Your task to perform on an android device: What's the weather? Image 0: 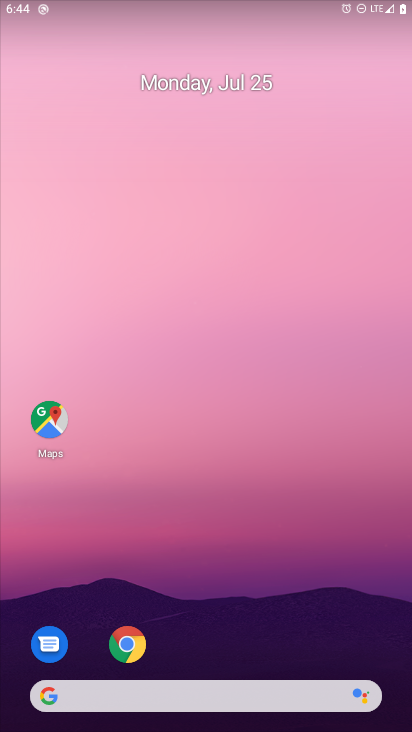
Step 0: press home button
Your task to perform on an android device: What's the weather? Image 1: 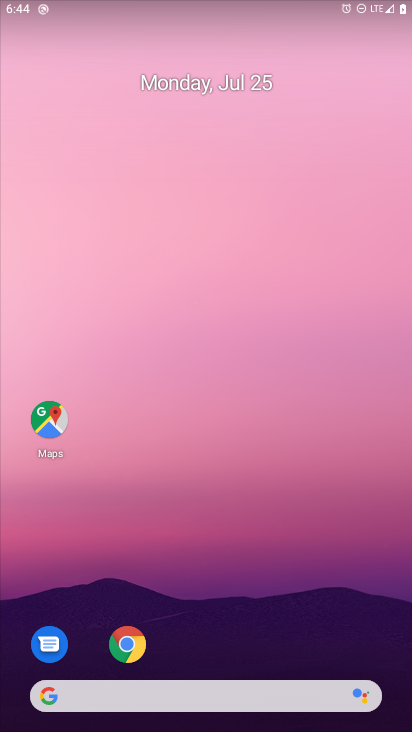
Step 1: click (45, 700)
Your task to perform on an android device: What's the weather? Image 2: 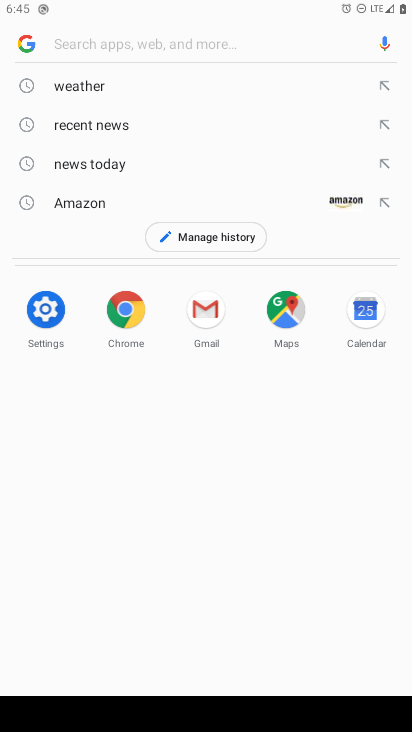
Step 2: click (81, 89)
Your task to perform on an android device: What's the weather? Image 3: 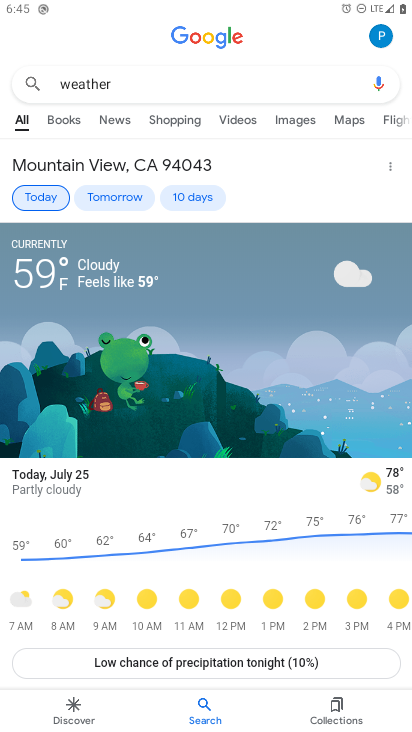
Step 3: task complete